Your task to perform on an android device: change alarm snooze length Image 0: 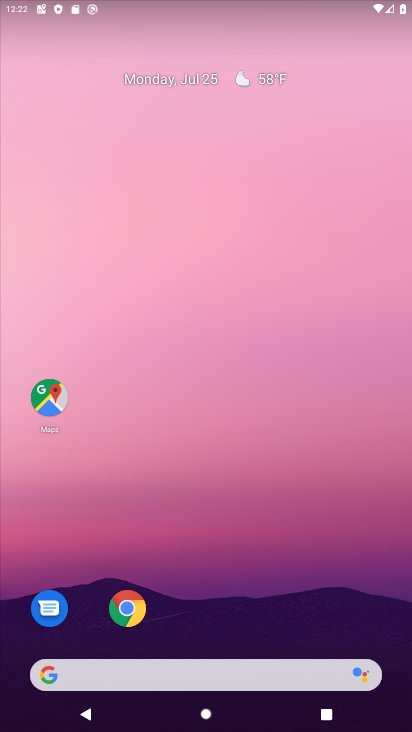
Step 0: drag from (181, 678) to (271, 230)
Your task to perform on an android device: change alarm snooze length Image 1: 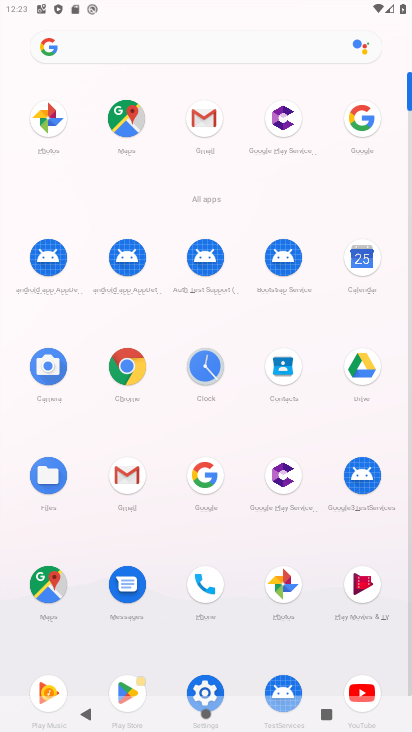
Step 1: click (206, 369)
Your task to perform on an android device: change alarm snooze length Image 2: 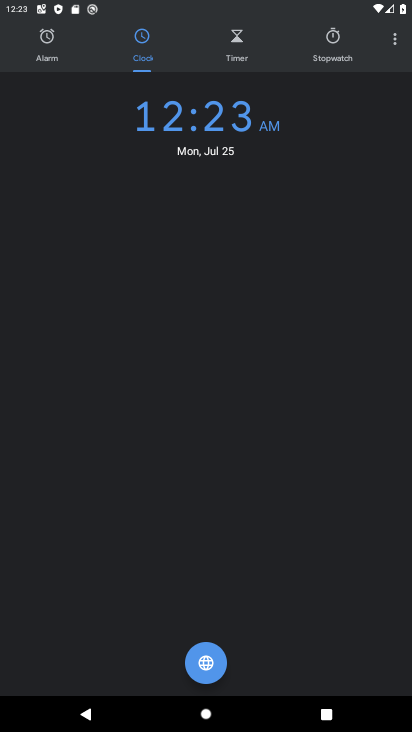
Step 2: click (396, 44)
Your task to perform on an android device: change alarm snooze length Image 3: 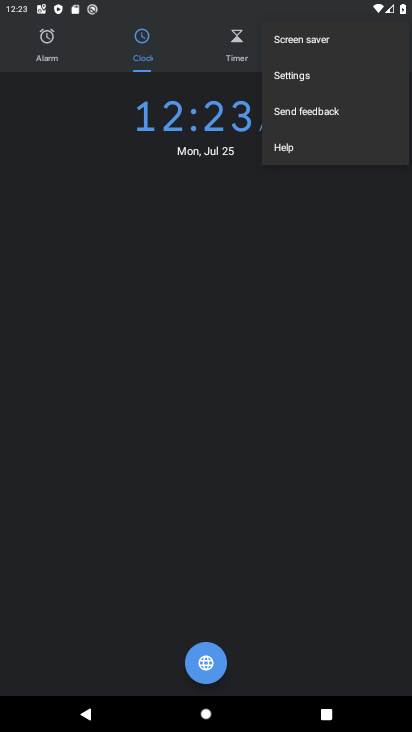
Step 3: click (301, 77)
Your task to perform on an android device: change alarm snooze length Image 4: 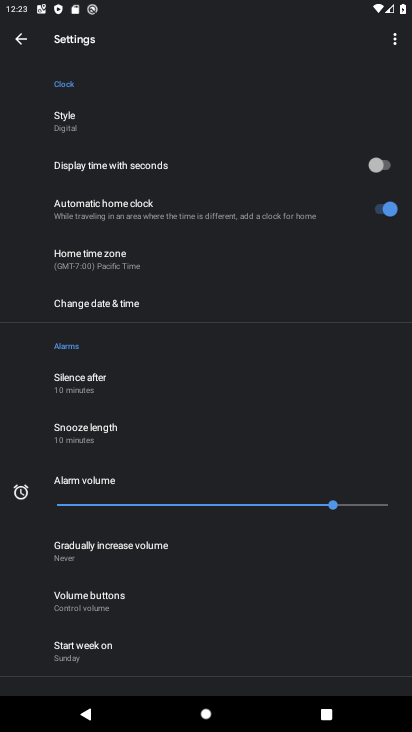
Step 4: click (88, 431)
Your task to perform on an android device: change alarm snooze length Image 5: 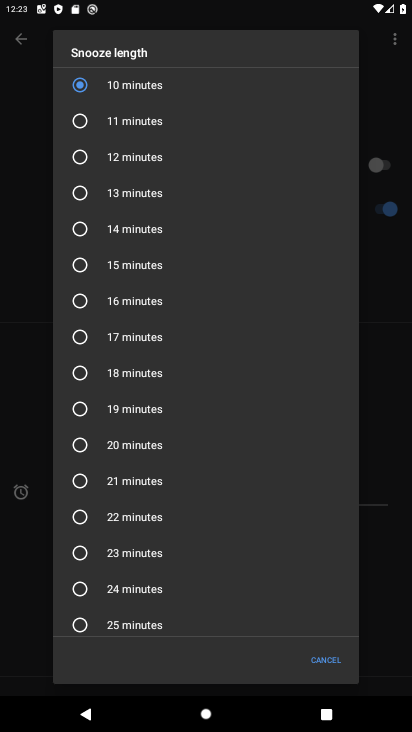
Step 5: click (81, 586)
Your task to perform on an android device: change alarm snooze length Image 6: 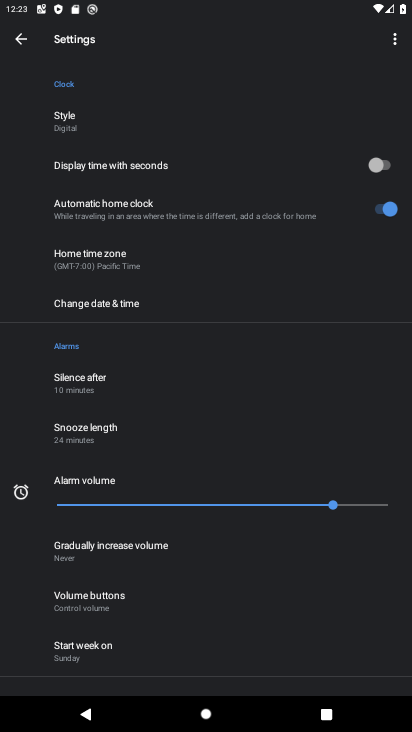
Step 6: task complete